Your task to perform on an android device: turn smart compose on in the gmail app Image 0: 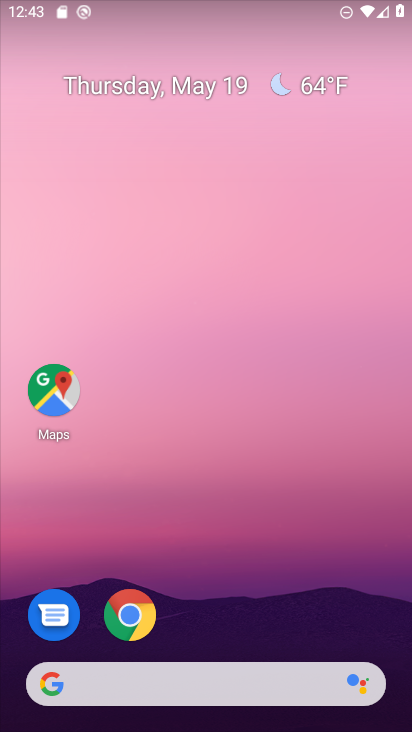
Step 0: drag from (262, 678) to (172, 172)
Your task to perform on an android device: turn smart compose on in the gmail app Image 1: 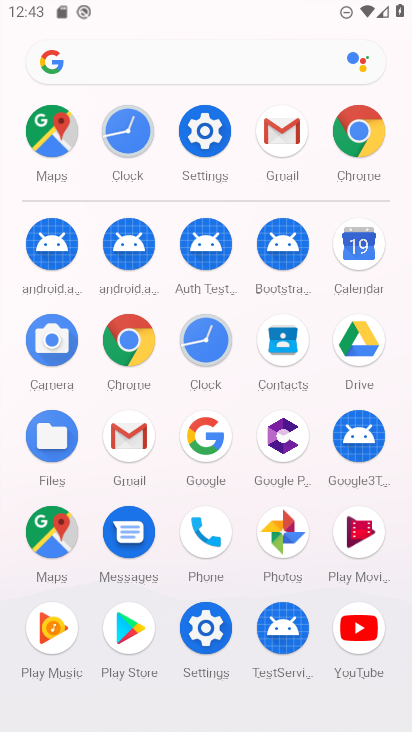
Step 1: click (139, 428)
Your task to perform on an android device: turn smart compose on in the gmail app Image 2: 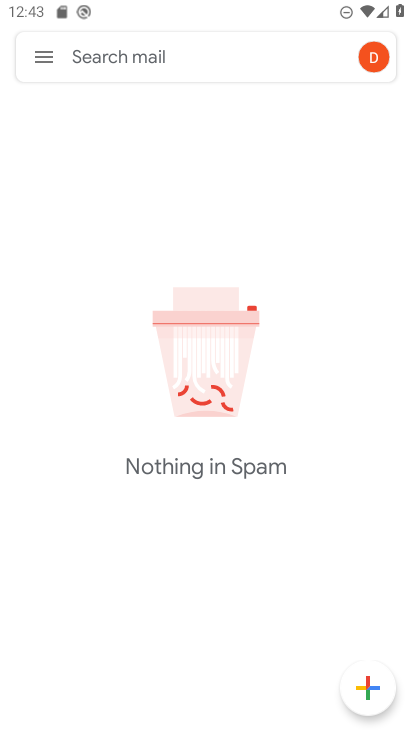
Step 2: click (32, 57)
Your task to perform on an android device: turn smart compose on in the gmail app Image 3: 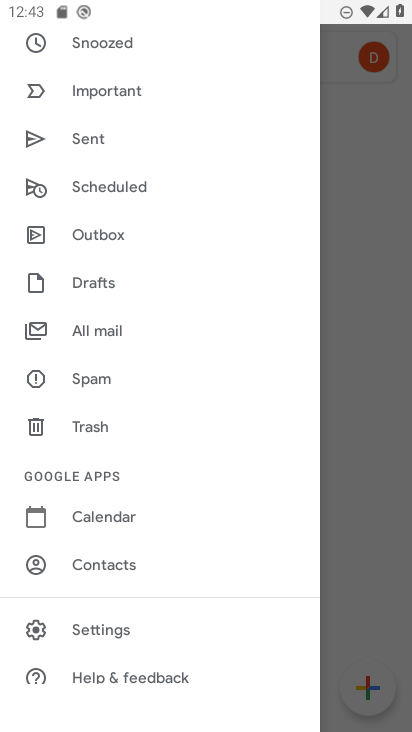
Step 3: click (113, 624)
Your task to perform on an android device: turn smart compose on in the gmail app Image 4: 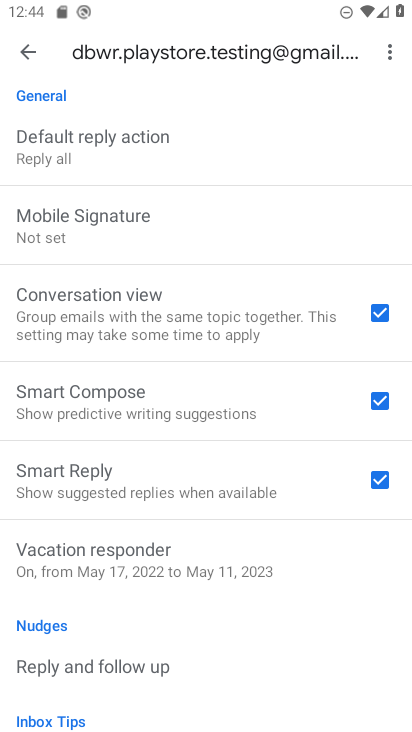
Step 4: click (376, 387)
Your task to perform on an android device: turn smart compose on in the gmail app Image 5: 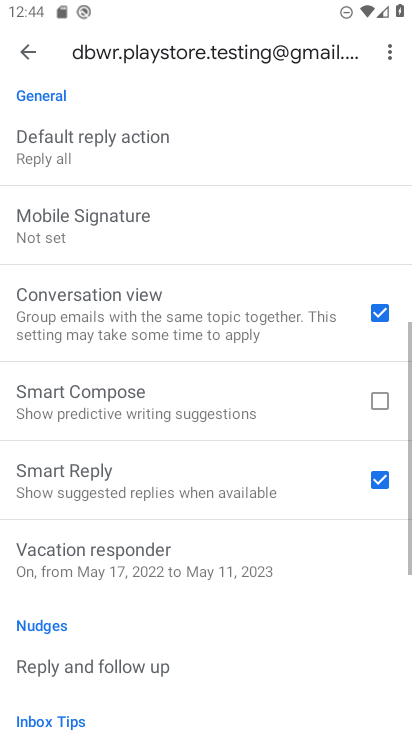
Step 5: click (376, 387)
Your task to perform on an android device: turn smart compose on in the gmail app Image 6: 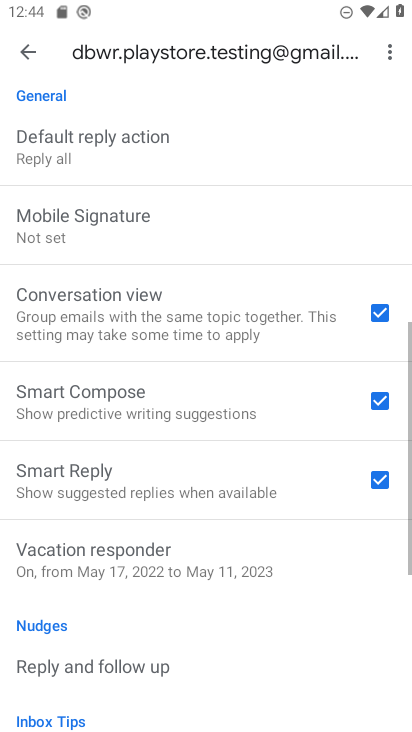
Step 6: task complete